Your task to perform on an android device: Search for Italian restaurants on Maps Image 0: 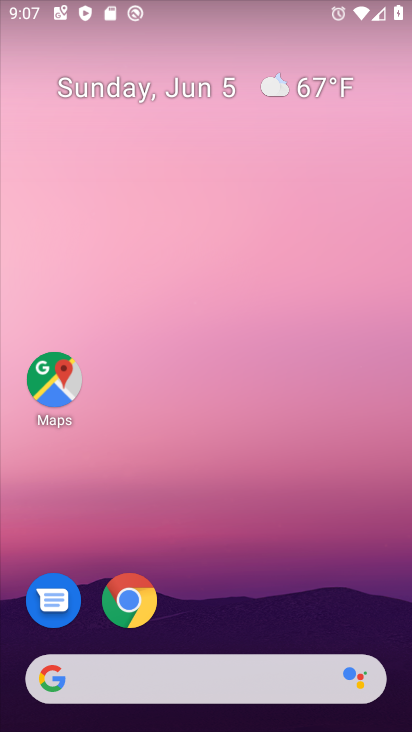
Step 0: drag from (394, 637) to (381, 523)
Your task to perform on an android device: Search for Italian restaurants on Maps Image 1: 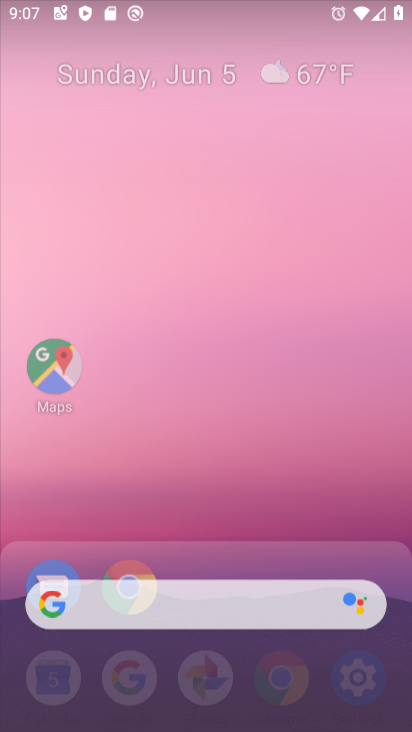
Step 1: drag from (343, 283) to (277, 97)
Your task to perform on an android device: Search for Italian restaurants on Maps Image 2: 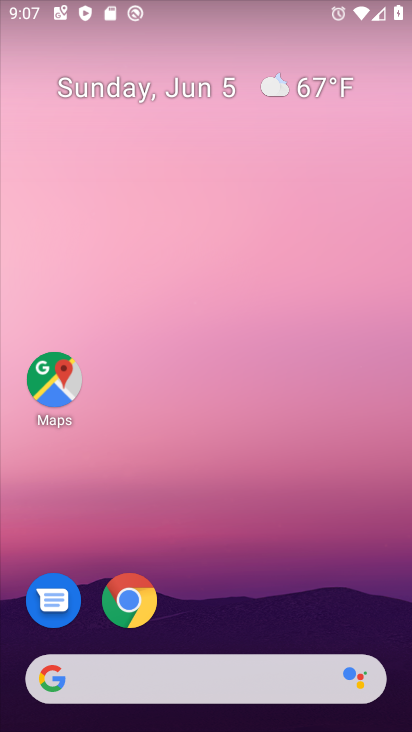
Step 2: drag from (384, 626) to (258, 16)
Your task to perform on an android device: Search for Italian restaurants on Maps Image 3: 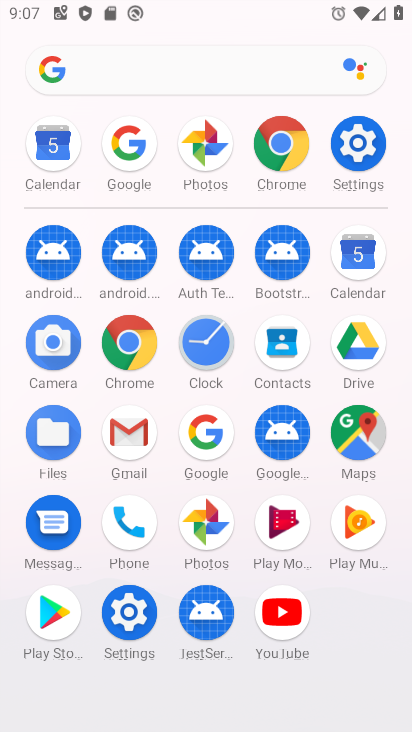
Step 3: click (367, 434)
Your task to perform on an android device: Search for Italian restaurants on Maps Image 4: 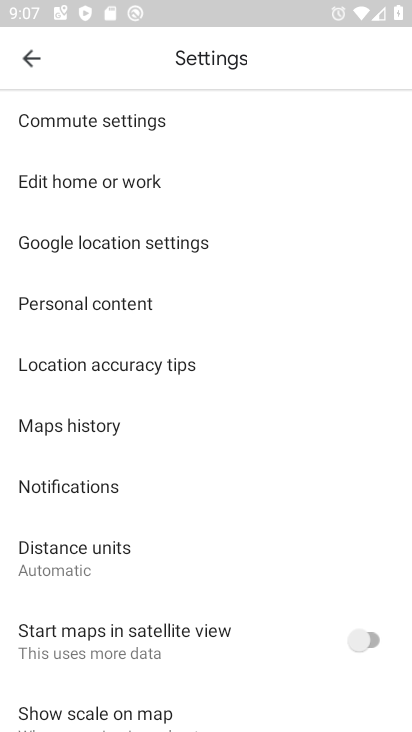
Step 4: press back button
Your task to perform on an android device: Search for Italian restaurants on Maps Image 5: 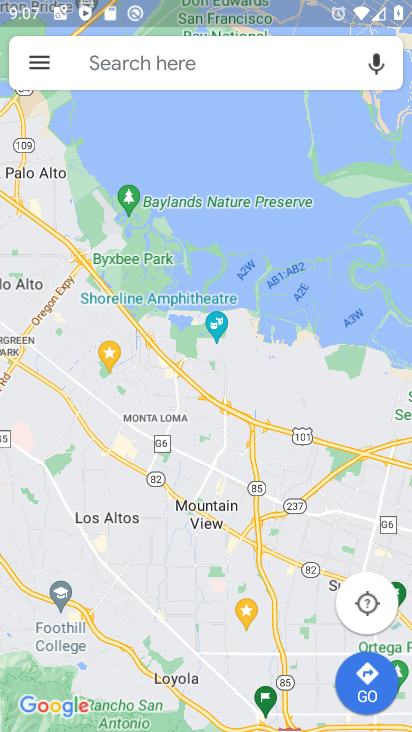
Step 5: click (142, 75)
Your task to perform on an android device: Search for Italian restaurants on Maps Image 6: 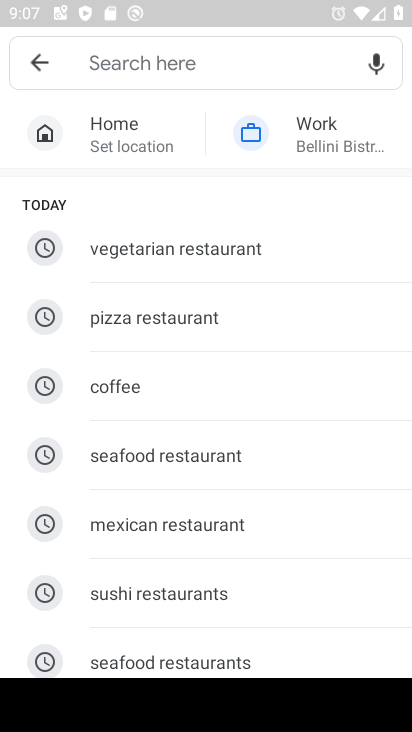
Step 6: drag from (198, 435) to (149, 268)
Your task to perform on an android device: Search for Italian restaurants on Maps Image 7: 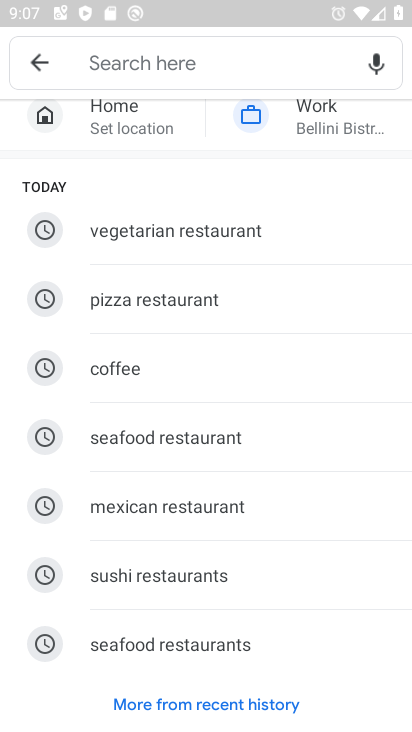
Step 7: click (146, 68)
Your task to perform on an android device: Search for Italian restaurants on Maps Image 8: 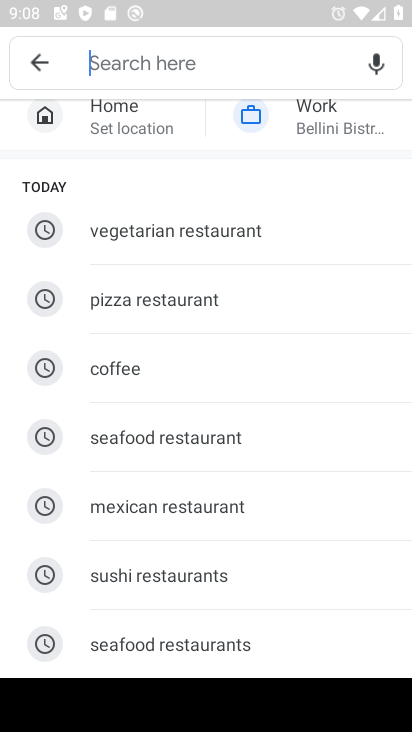
Step 8: type "Italian restaurants"
Your task to perform on an android device: Search for Italian restaurants on Maps Image 9: 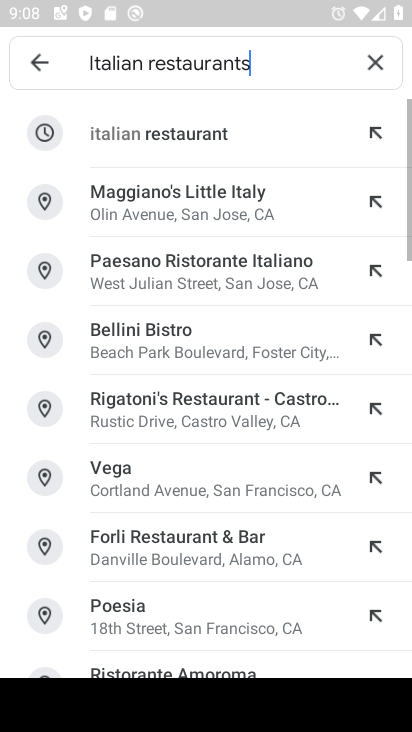
Step 9: click (206, 133)
Your task to perform on an android device: Search for Italian restaurants on Maps Image 10: 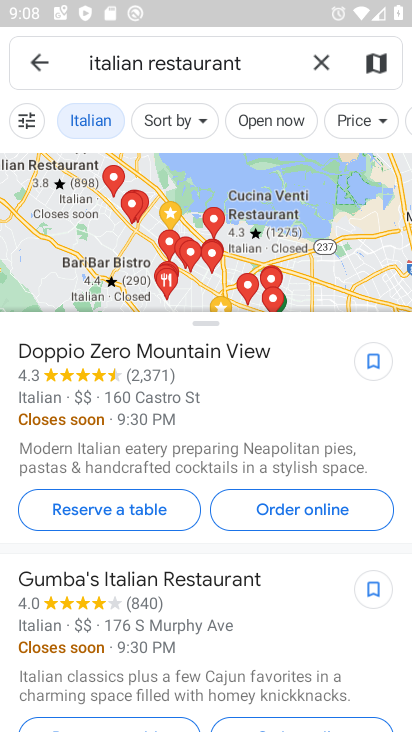
Step 10: task complete